Your task to perform on an android device: allow cookies in the chrome app Image 0: 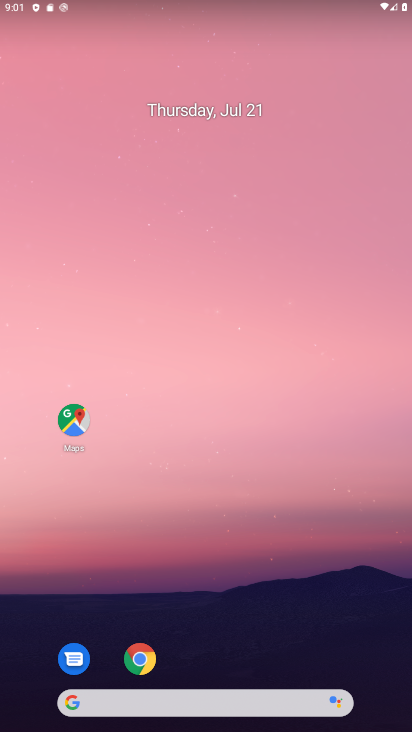
Step 0: drag from (210, 682) to (158, 73)
Your task to perform on an android device: allow cookies in the chrome app Image 1: 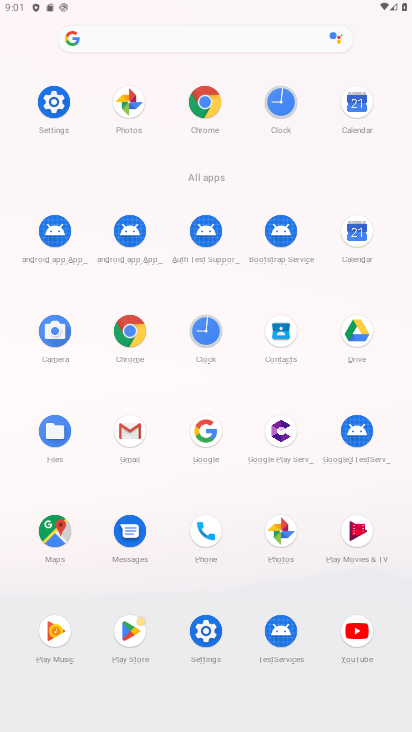
Step 1: click (128, 345)
Your task to perform on an android device: allow cookies in the chrome app Image 2: 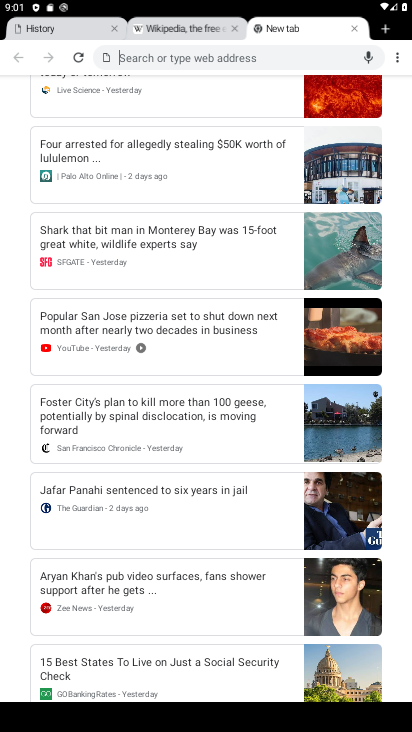
Step 2: click (400, 51)
Your task to perform on an android device: allow cookies in the chrome app Image 3: 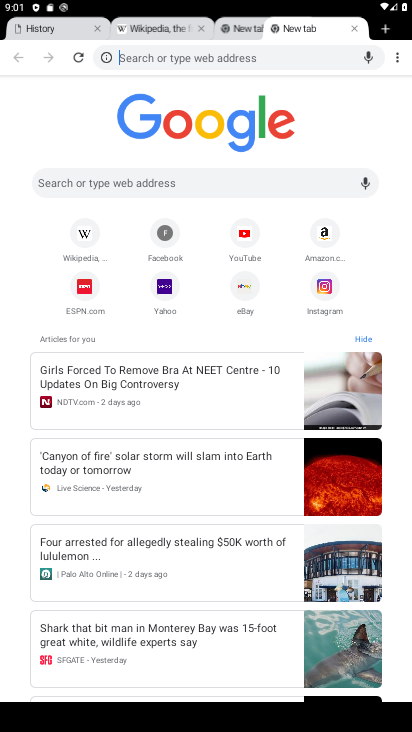
Step 3: click (400, 58)
Your task to perform on an android device: allow cookies in the chrome app Image 4: 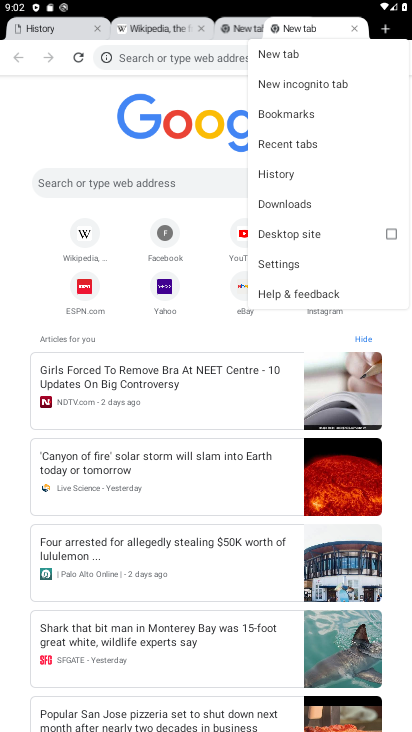
Step 4: click (298, 257)
Your task to perform on an android device: allow cookies in the chrome app Image 5: 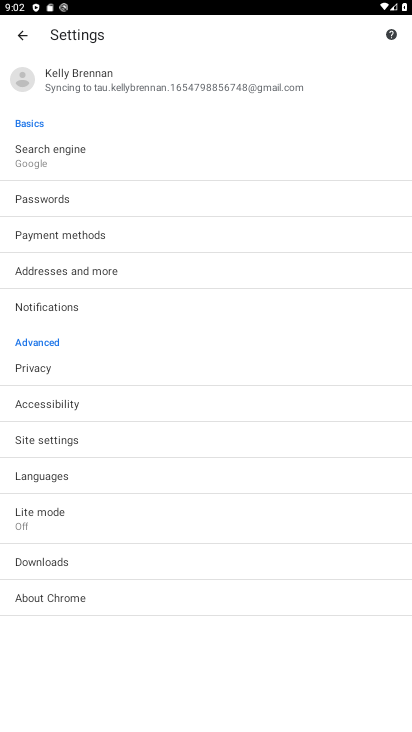
Step 5: click (36, 444)
Your task to perform on an android device: allow cookies in the chrome app Image 6: 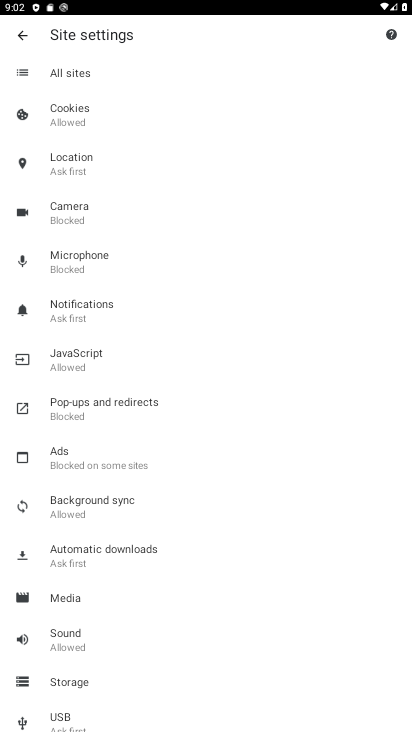
Step 6: click (60, 123)
Your task to perform on an android device: allow cookies in the chrome app Image 7: 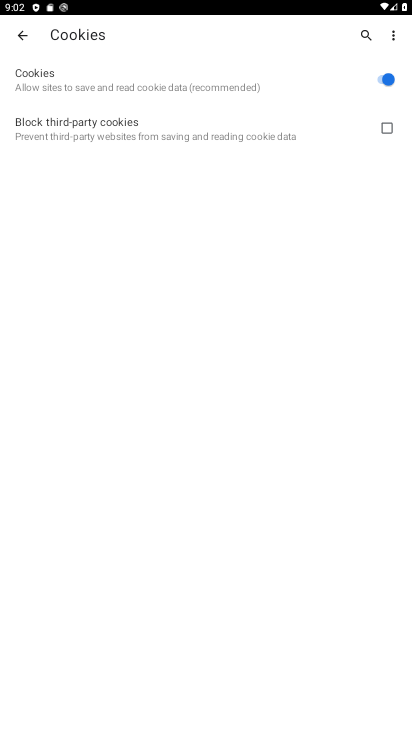
Step 7: task complete